Your task to perform on an android device: turn on showing notifications on the lock screen Image 0: 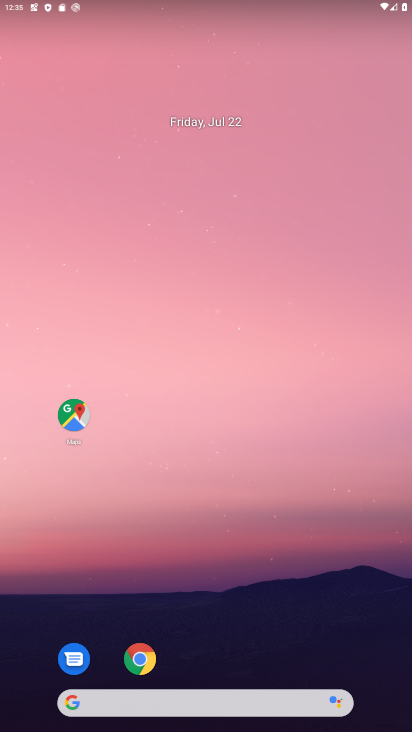
Step 0: drag from (210, 598) to (208, 123)
Your task to perform on an android device: turn on showing notifications on the lock screen Image 1: 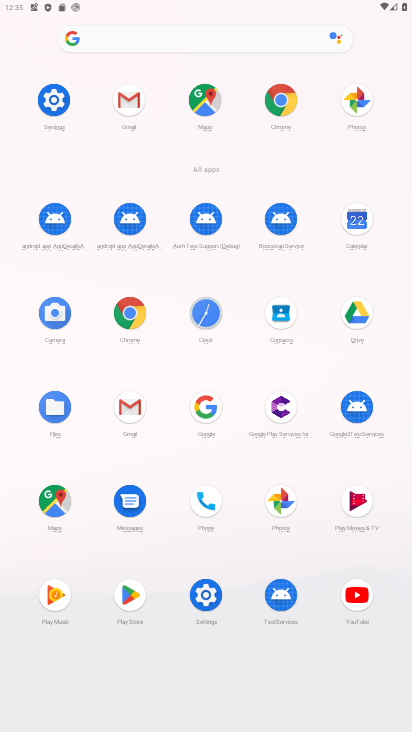
Step 1: click (227, 600)
Your task to perform on an android device: turn on showing notifications on the lock screen Image 2: 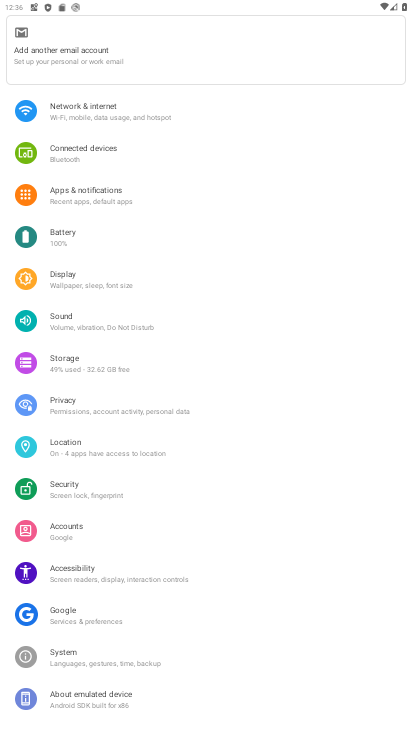
Step 2: click (68, 209)
Your task to perform on an android device: turn on showing notifications on the lock screen Image 3: 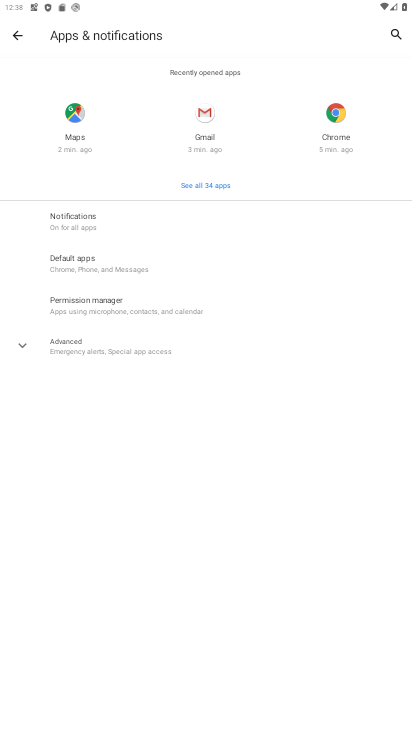
Step 3: click (83, 209)
Your task to perform on an android device: turn on showing notifications on the lock screen Image 4: 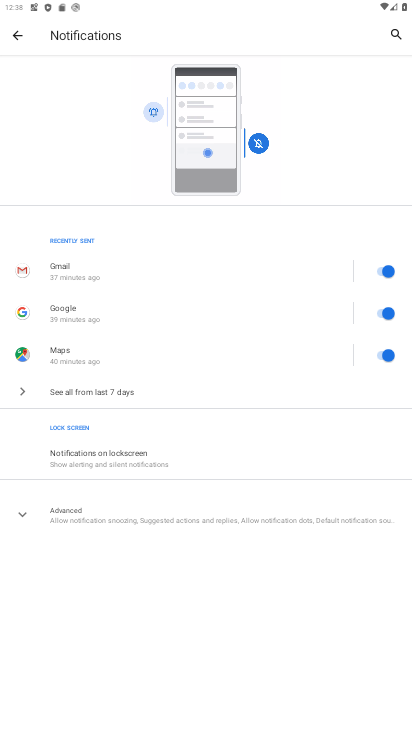
Step 4: click (78, 473)
Your task to perform on an android device: turn on showing notifications on the lock screen Image 5: 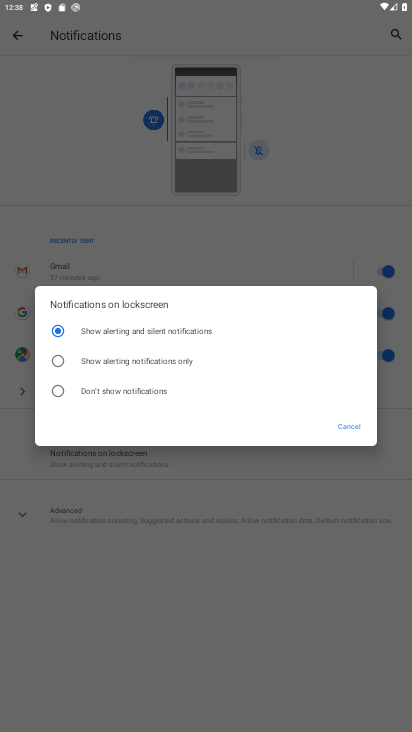
Step 5: task complete